Your task to perform on an android device: turn on location history Image 0: 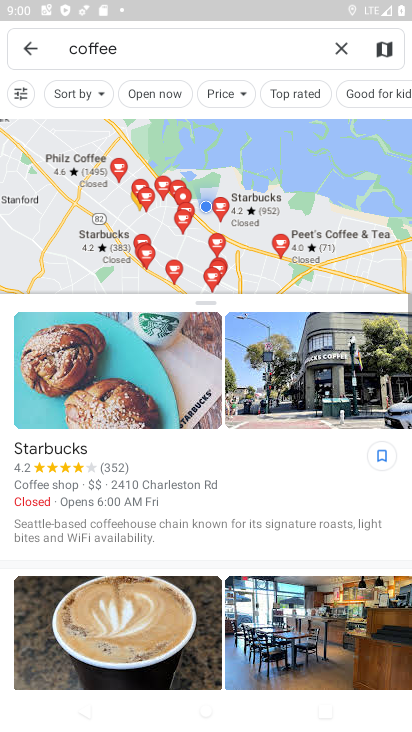
Step 0: press home button
Your task to perform on an android device: turn on location history Image 1: 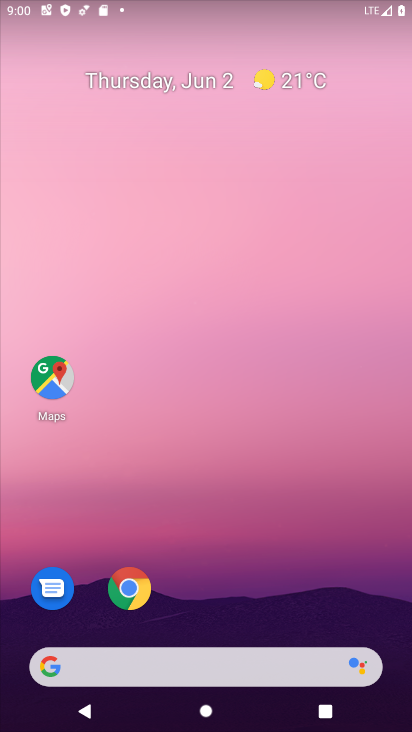
Step 1: drag from (203, 569) to (209, 281)
Your task to perform on an android device: turn on location history Image 2: 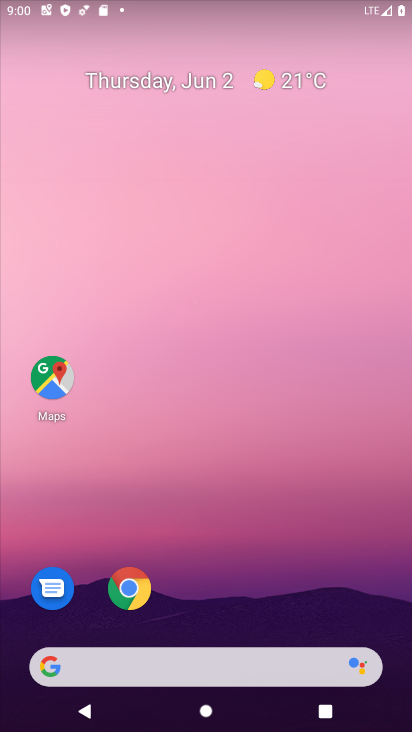
Step 2: drag from (213, 262) to (213, 141)
Your task to perform on an android device: turn on location history Image 3: 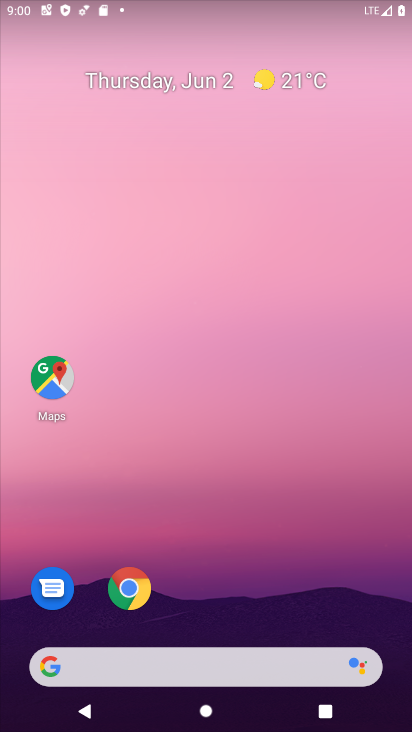
Step 3: drag from (228, 627) to (222, 154)
Your task to perform on an android device: turn on location history Image 4: 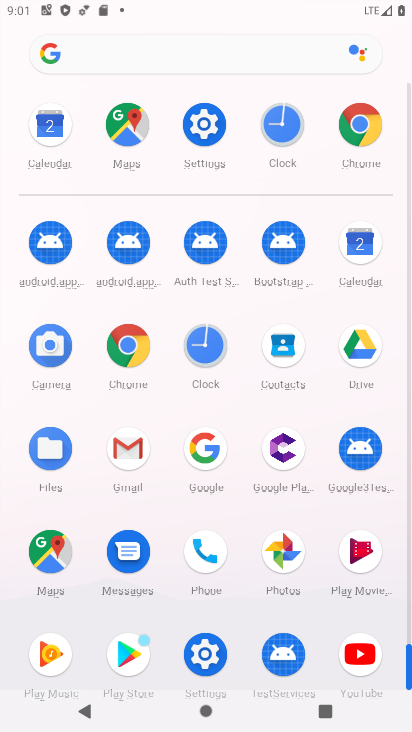
Step 4: click (213, 144)
Your task to perform on an android device: turn on location history Image 5: 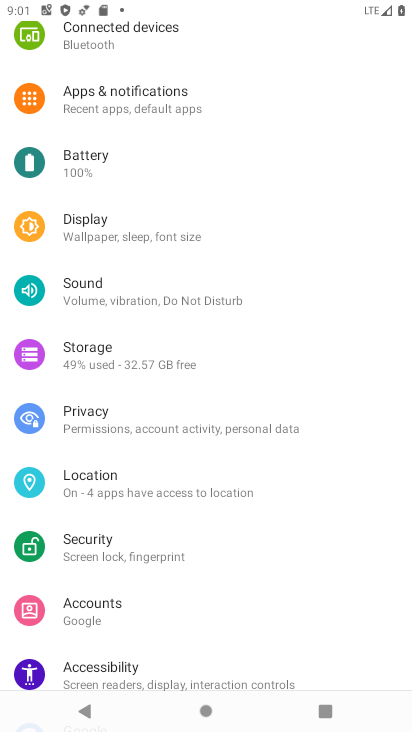
Step 5: click (149, 480)
Your task to perform on an android device: turn on location history Image 6: 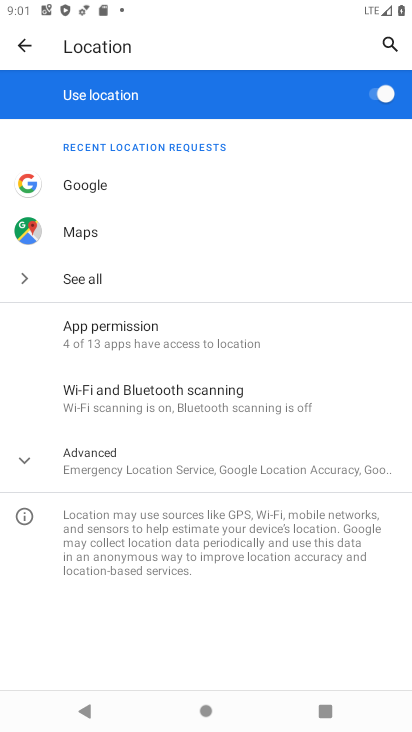
Step 6: click (186, 464)
Your task to perform on an android device: turn on location history Image 7: 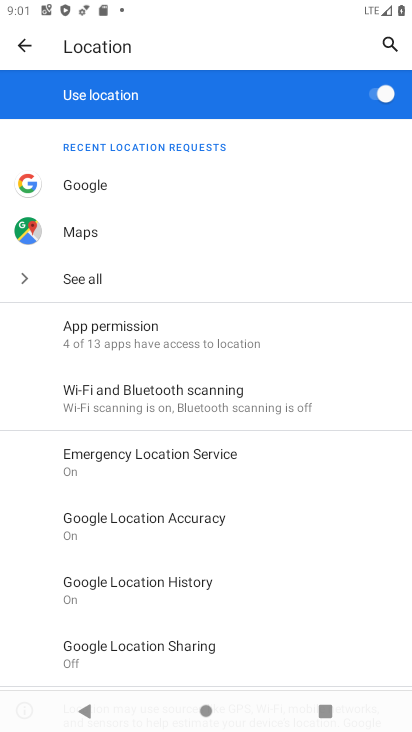
Step 7: click (203, 582)
Your task to perform on an android device: turn on location history Image 8: 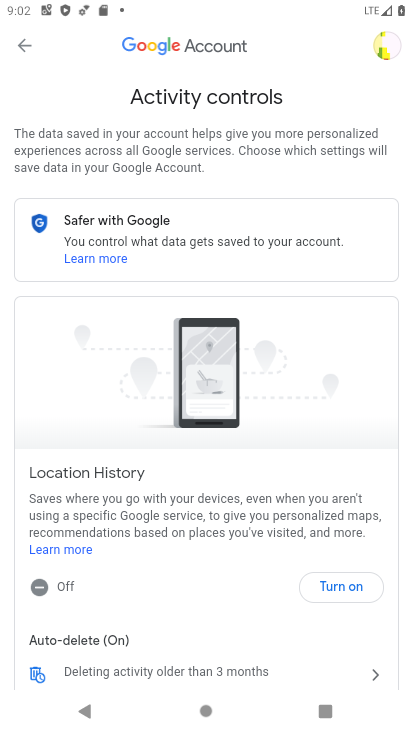
Step 8: click (353, 590)
Your task to perform on an android device: turn on location history Image 9: 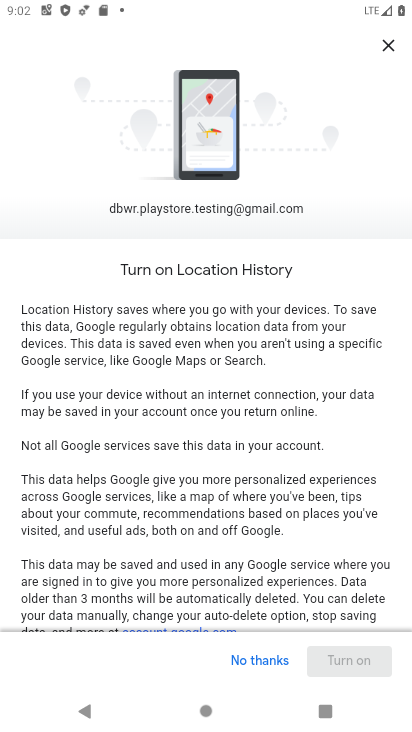
Step 9: drag from (185, 493) to (191, 192)
Your task to perform on an android device: turn on location history Image 10: 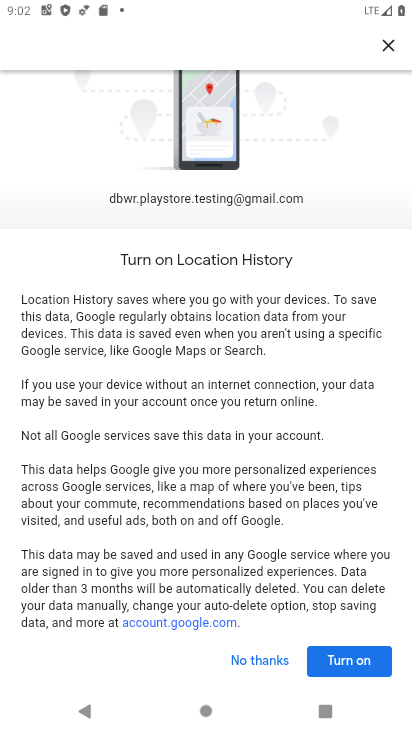
Step 10: click (357, 662)
Your task to perform on an android device: turn on location history Image 11: 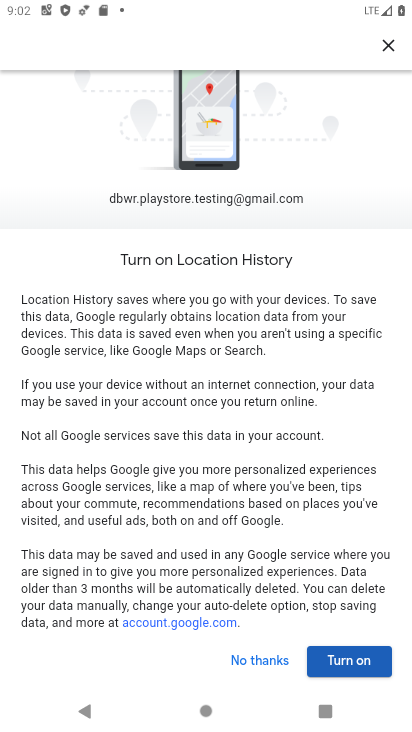
Step 11: click (347, 673)
Your task to perform on an android device: turn on location history Image 12: 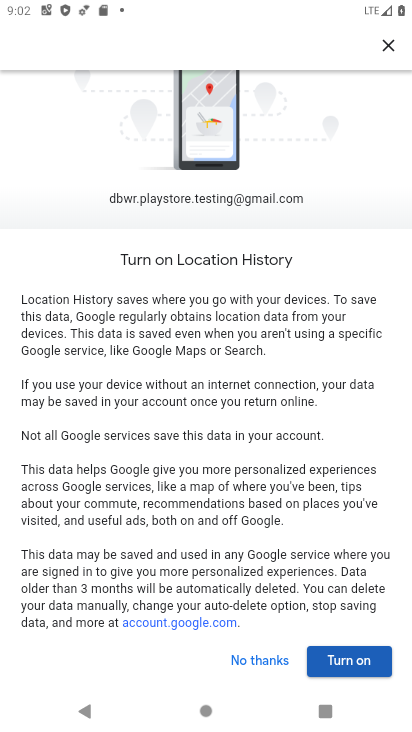
Step 12: click (352, 670)
Your task to perform on an android device: turn on location history Image 13: 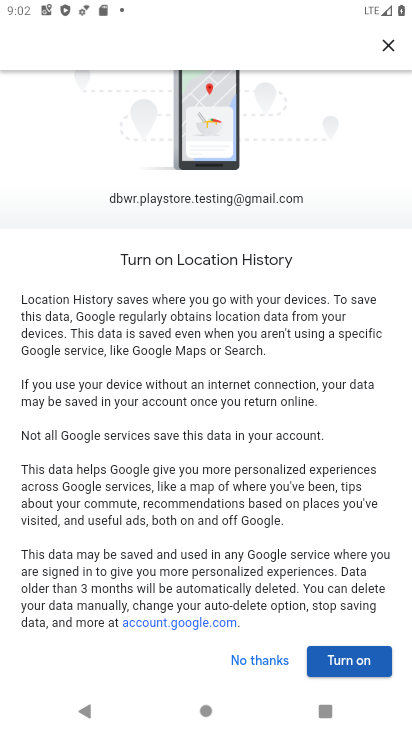
Step 13: click (363, 670)
Your task to perform on an android device: turn on location history Image 14: 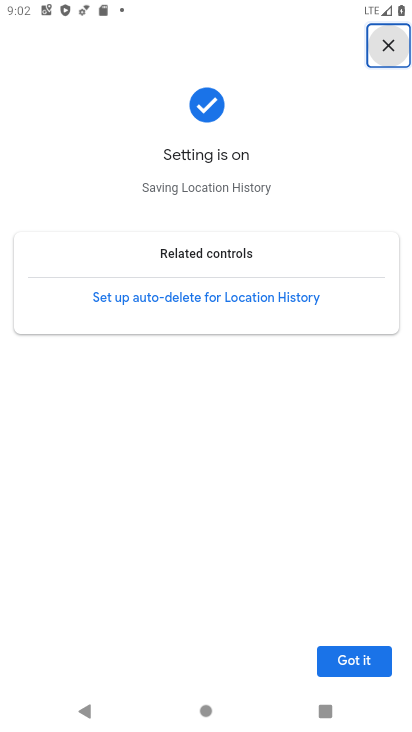
Step 14: click (366, 651)
Your task to perform on an android device: turn on location history Image 15: 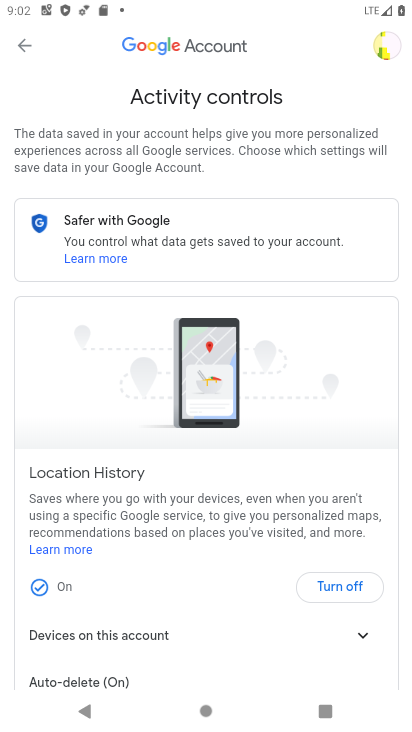
Step 15: task complete